Your task to perform on an android device: What's the news this weekend? Image 0: 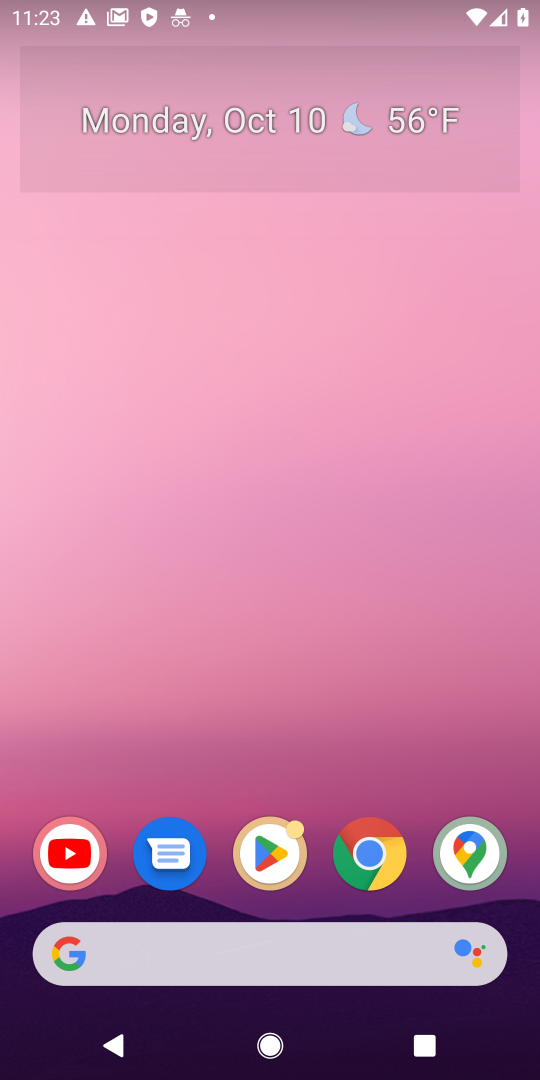
Step 0: press home button
Your task to perform on an android device: What's the news this weekend? Image 1: 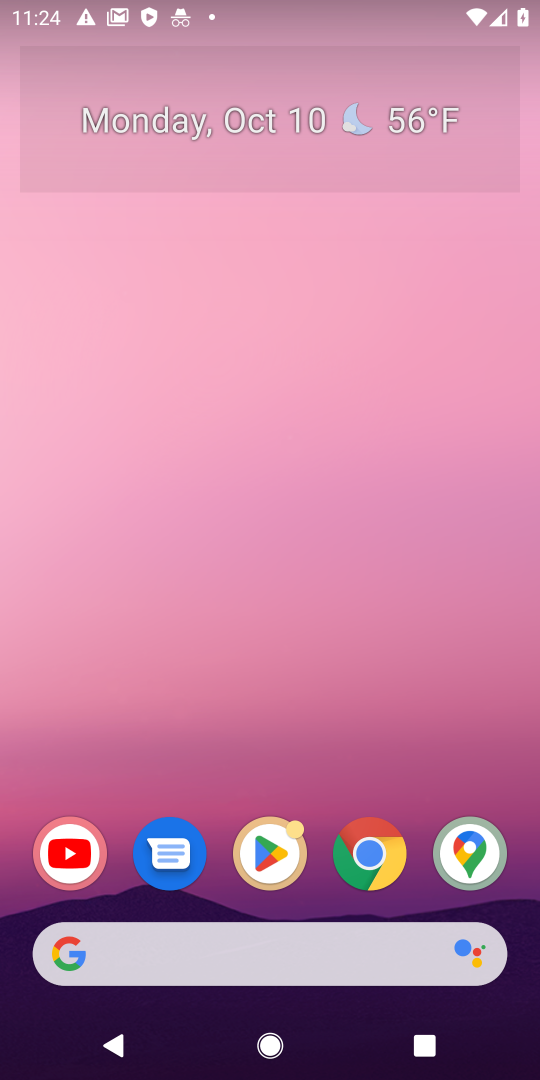
Step 1: click (247, 948)
Your task to perform on an android device: What's the news this weekend? Image 2: 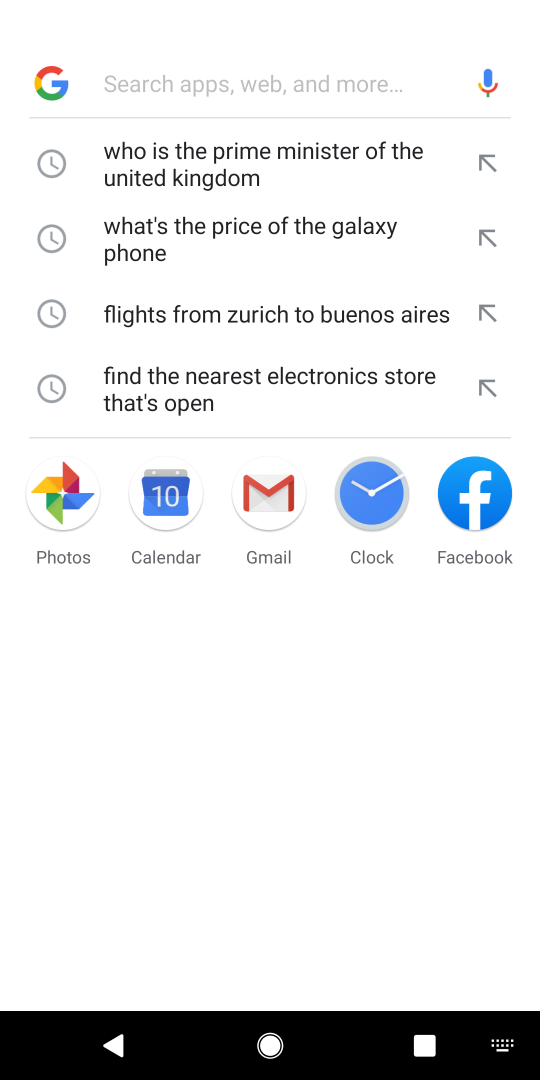
Step 2: type "What's the news this weekend"
Your task to perform on an android device: What's the news this weekend? Image 3: 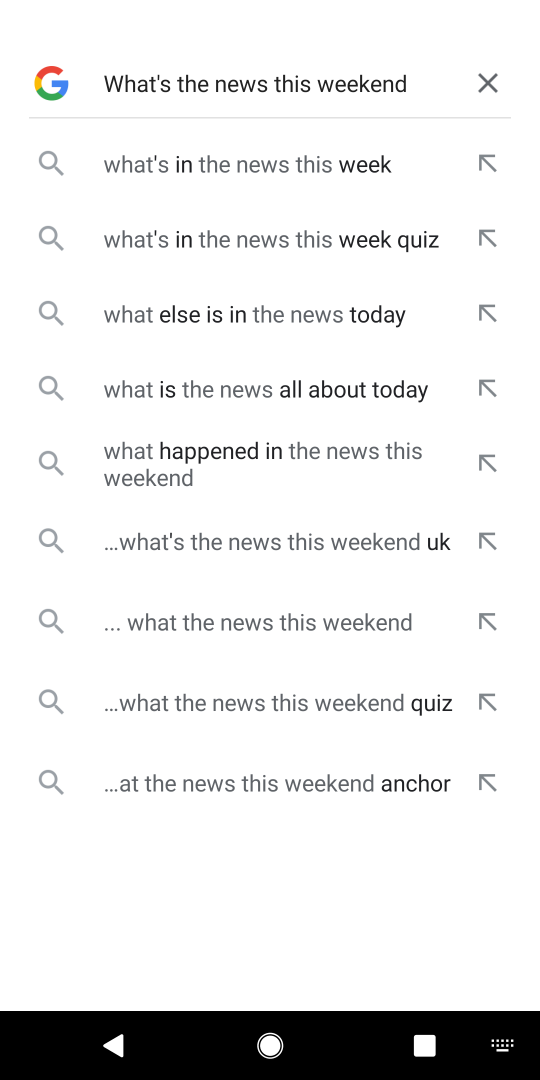
Step 3: press enter
Your task to perform on an android device: What's the news this weekend? Image 4: 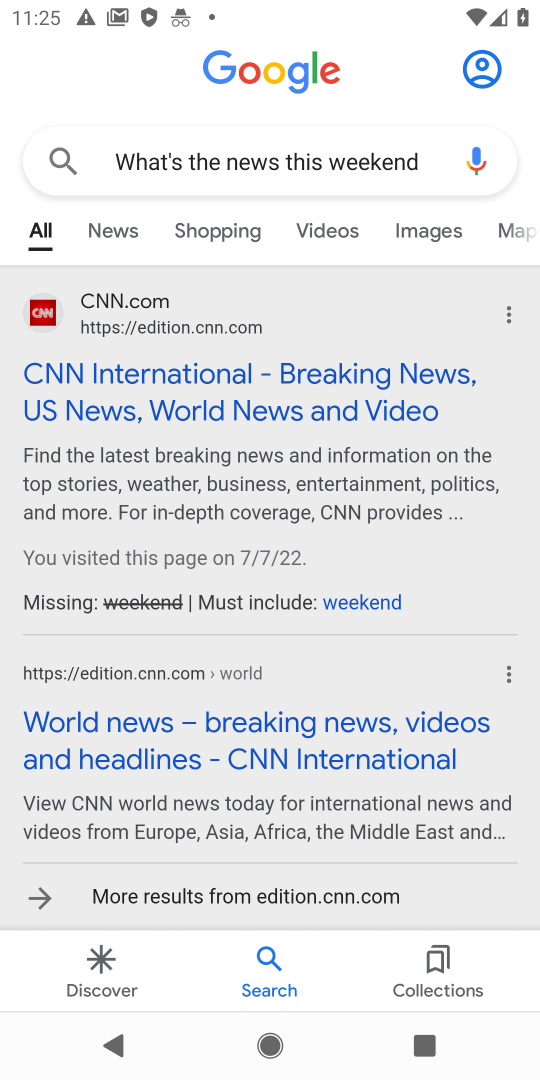
Step 4: click (366, 386)
Your task to perform on an android device: What's the news this weekend? Image 5: 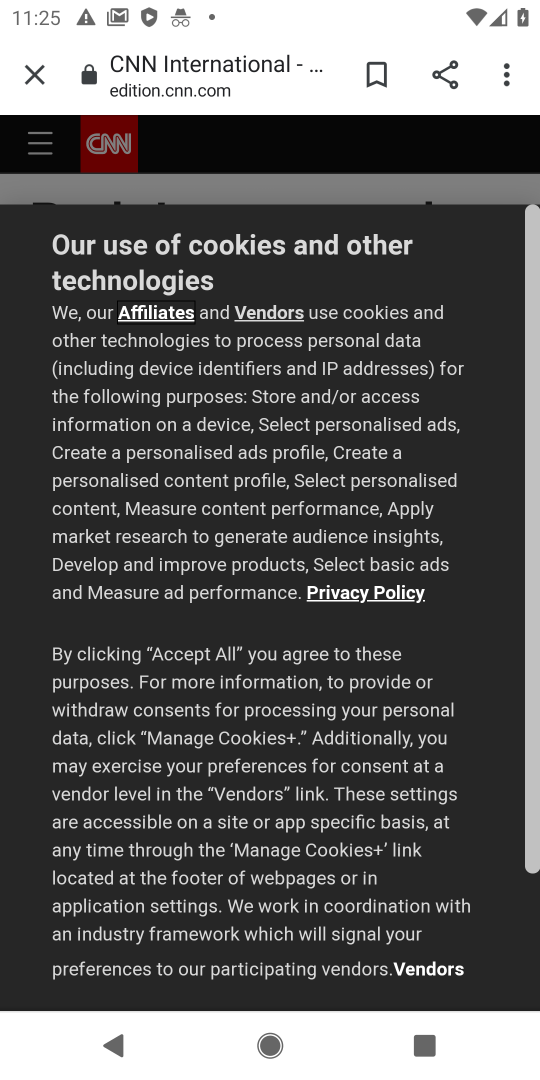
Step 5: drag from (385, 770) to (399, 437)
Your task to perform on an android device: What's the news this weekend? Image 6: 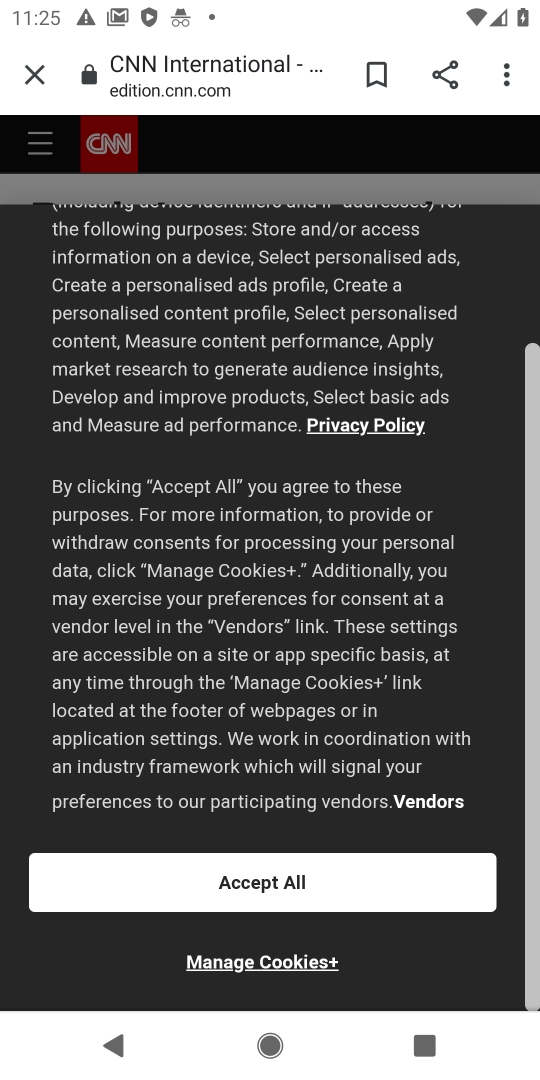
Step 6: click (313, 877)
Your task to perform on an android device: What's the news this weekend? Image 7: 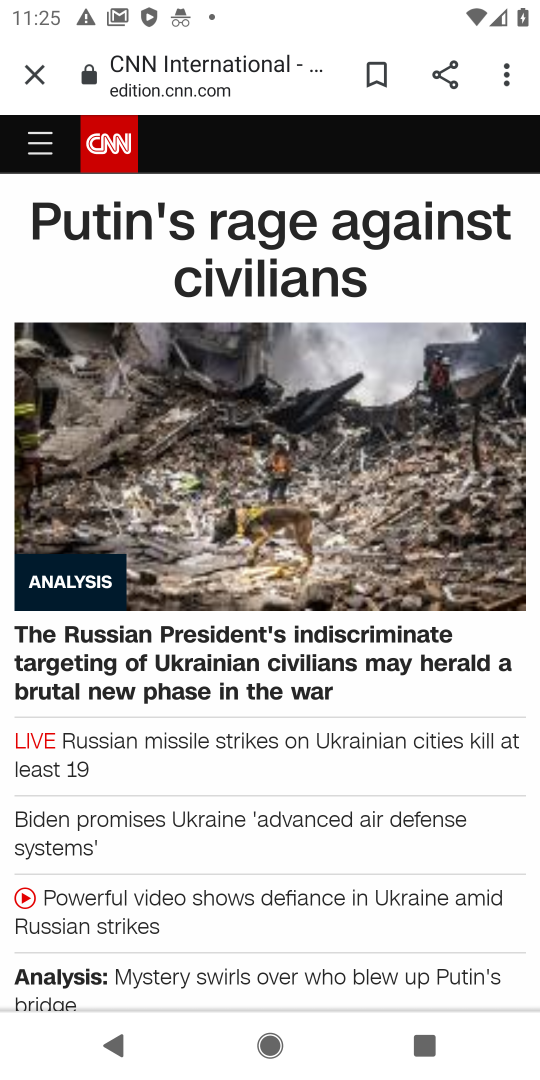
Step 7: task complete